Your task to perform on an android device: Open network settings Image 0: 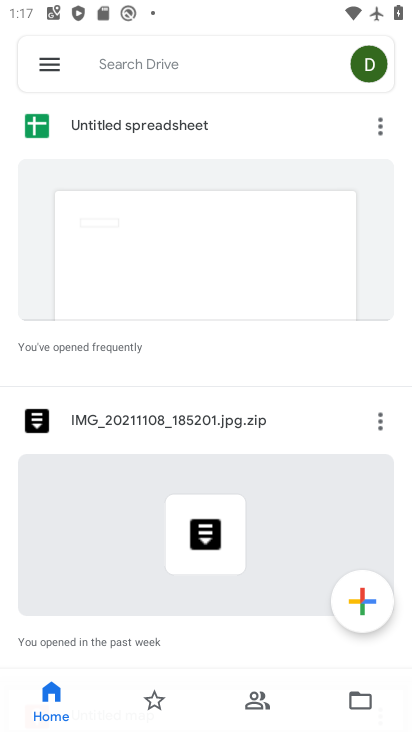
Step 0: press home button
Your task to perform on an android device: Open network settings Image 1: 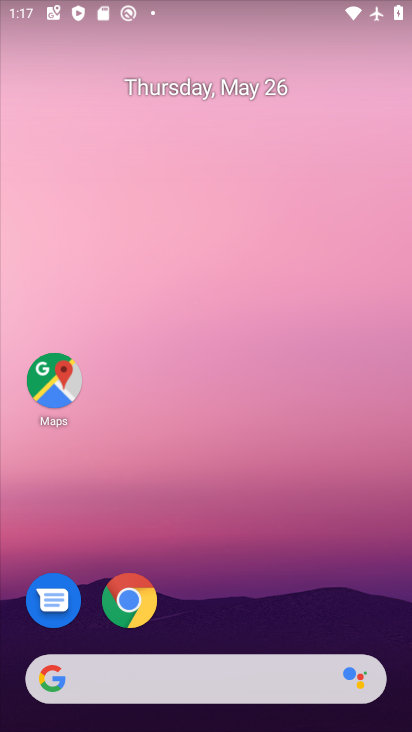
Step 1: drag from (214, 576) to (245, 152)
Your task to perform on an android device: Open network settings Image 2: 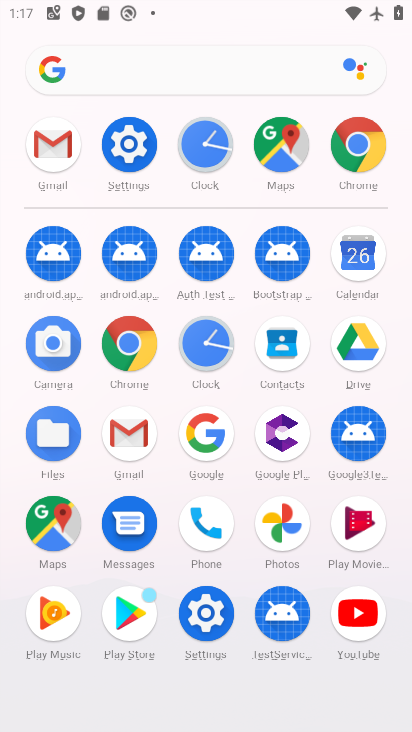
Step 2: click (135, 153)
Your task to perform on an android device: Open network settings Image 3: 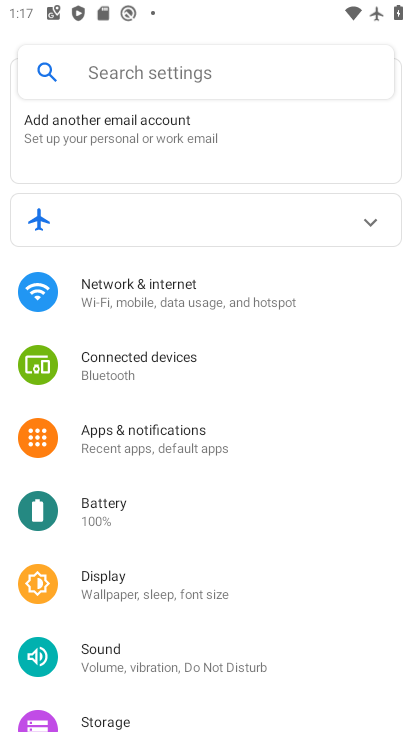
Step 3: click (143, 288)
Your task to perform on an android device: Open network settings Image 4: 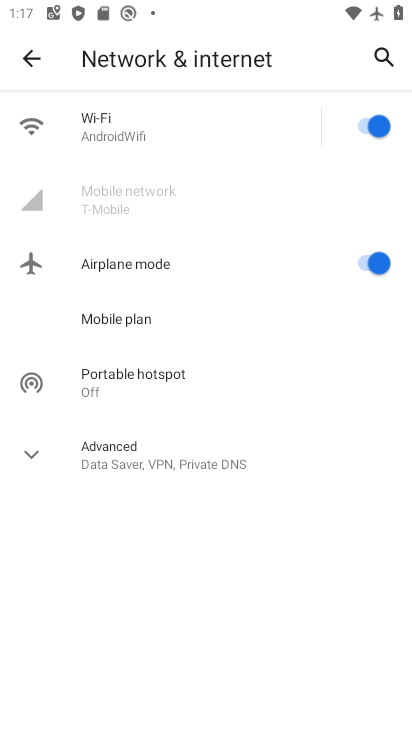
Step 4: task complete